Your task to perform on an android device: turn off sleep mode Image 0: 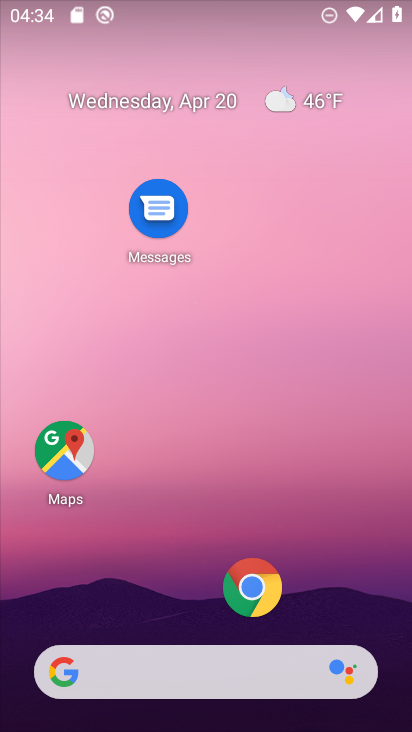
Step 0: drag from (173, 615) to (177, 137)
Your task to perform on an android device: turn off sleep mode Image 1: 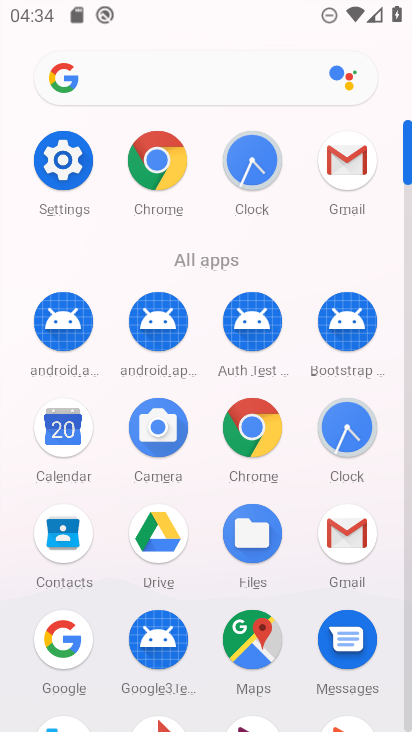
Step 1: click (72, 158)
Your task to perform on an android device: turn off sleep mode Image 2: 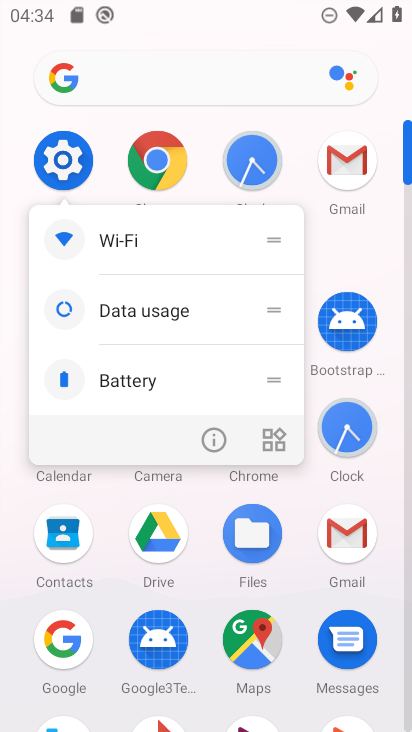
Step 2: click (56, 169)
Your task to perform on an android device: turn off sleep mode Image 3: 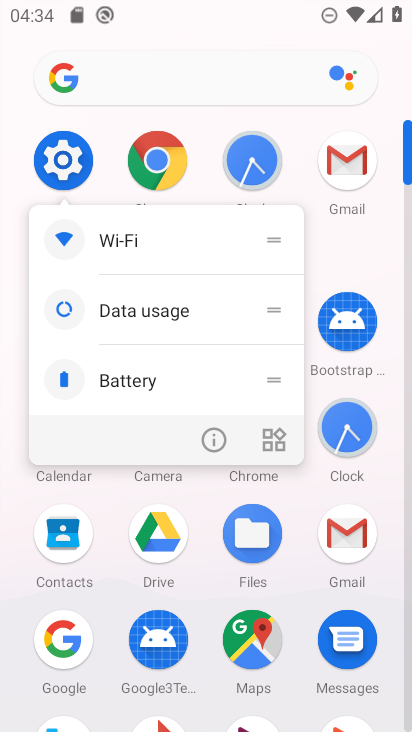
Step 3: click (56, 169)
Your task to perform on an android device: turn off sleep mode Image 4: 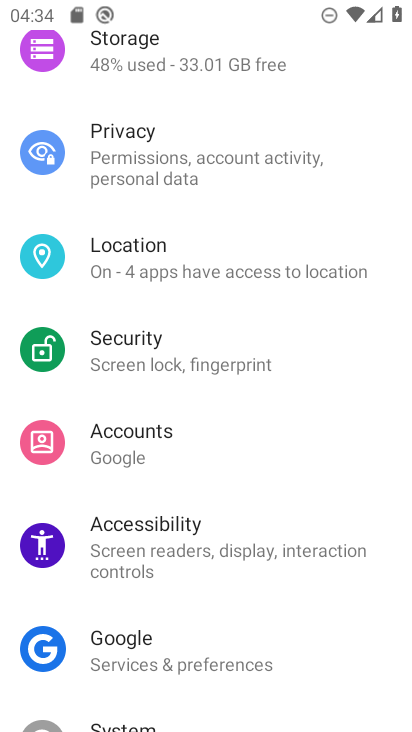
Step 4: drag from (183, 198) to (203, 442)
Your task to perform on an android device: turn off sleep mode Image 5: 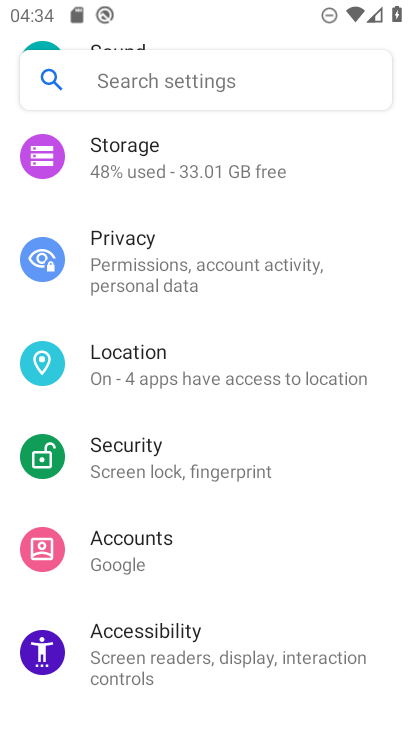
Step 5: drag from (213, 230) to (221, 493)
Your task to perform on an android device: turn off sleep mode Image 6: 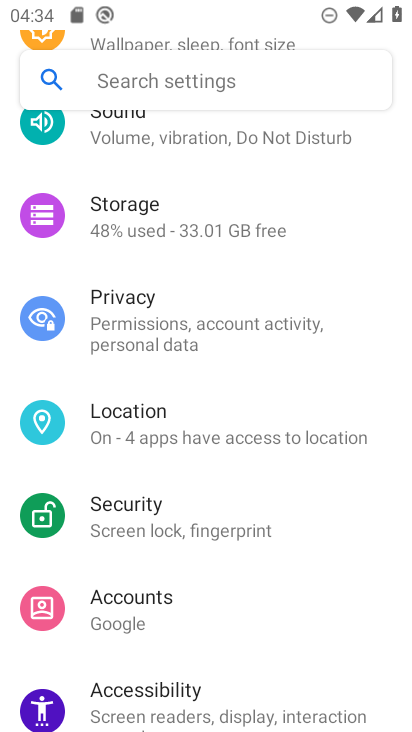
Step 6: drag from (189, 355) to (186, 586)
Your task to perform on an android device: turn off sleep mode Image 7: 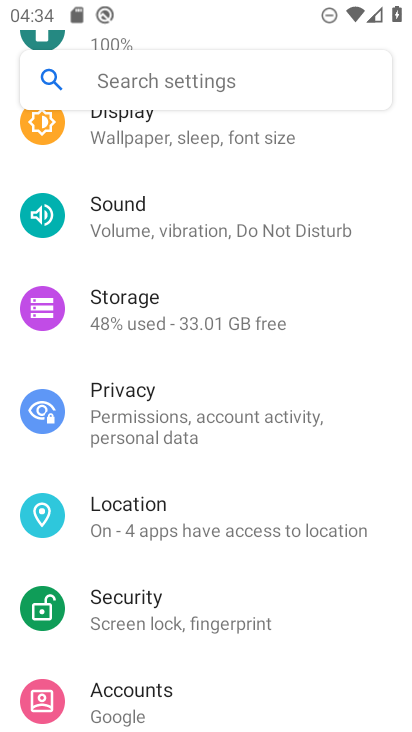
Step 7: click (180, 140)
Your task to perform on an android device: turn off sleep mode Image 8: 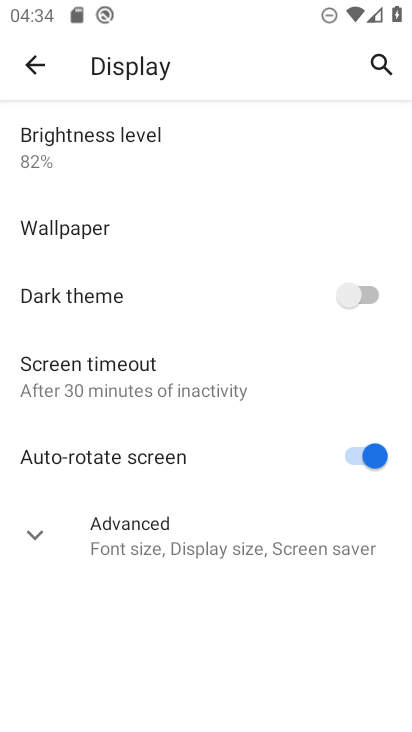
Step 8: click (80, 364)
Your task to perform on an android device: turn off sleep mode Image 9: 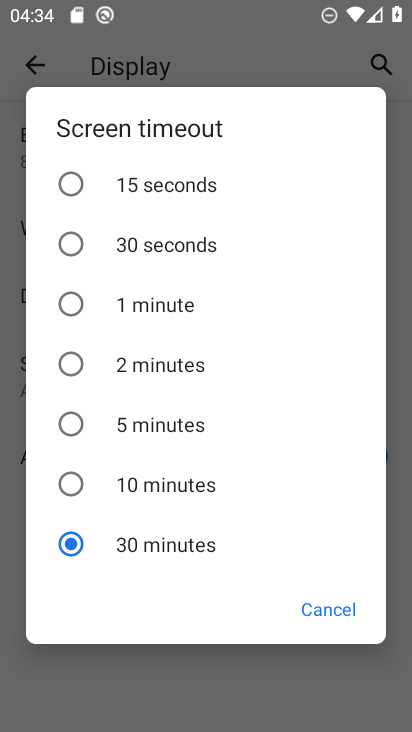
Step 9: click (101, 239)
Your task to perform on an android device: turn off sleep mode Image 10: 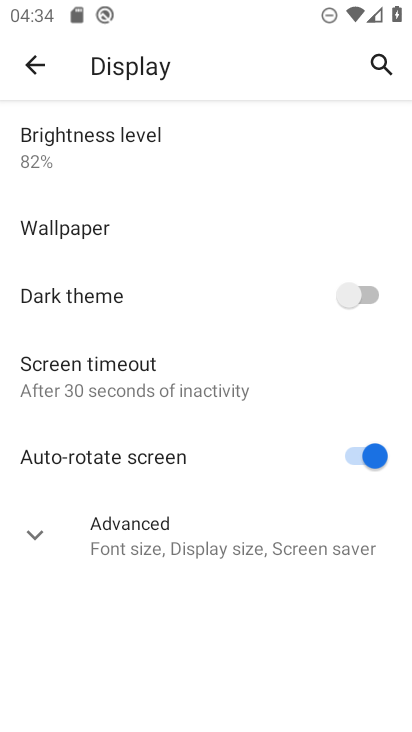
Step 10: task complete